Your task to perform on an android device: What's the weather? Image 0: 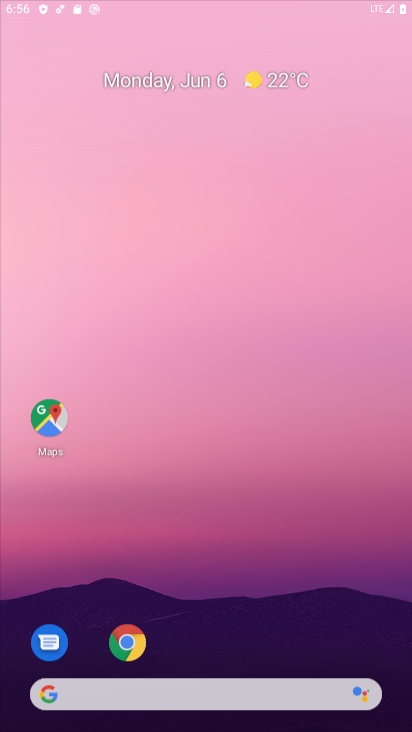
Step 0: click (173, 290)
Your task to perform on an android device: What's the weather? Image 1: 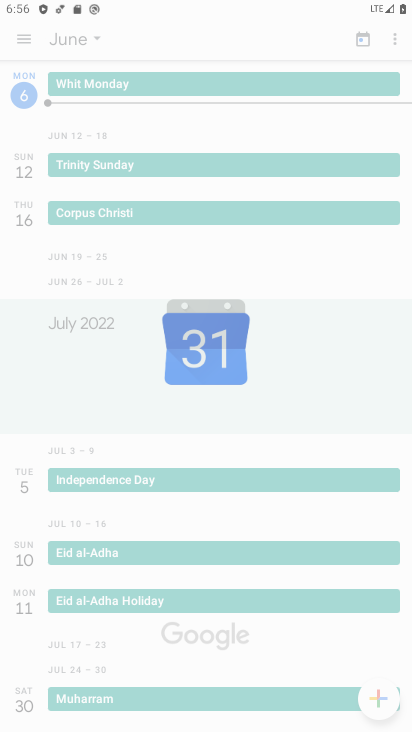
Step 1: drag from (166, 713) to (293, 234)
Your task to perform on an android device: What's the weather? Image 2: 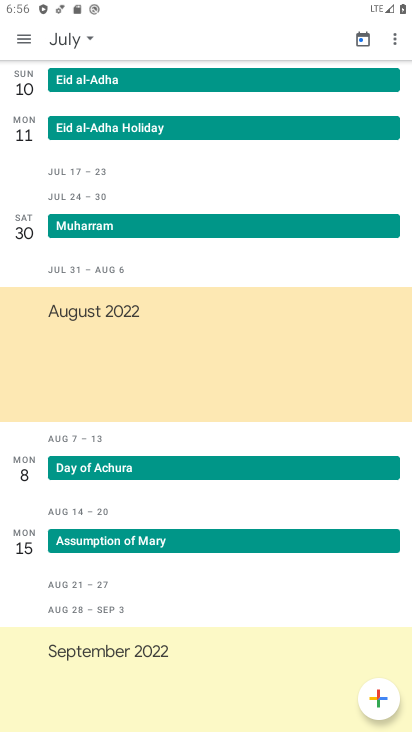
Step 2: press home button
Your task to perform on an android device: What's the weather? Image 3: 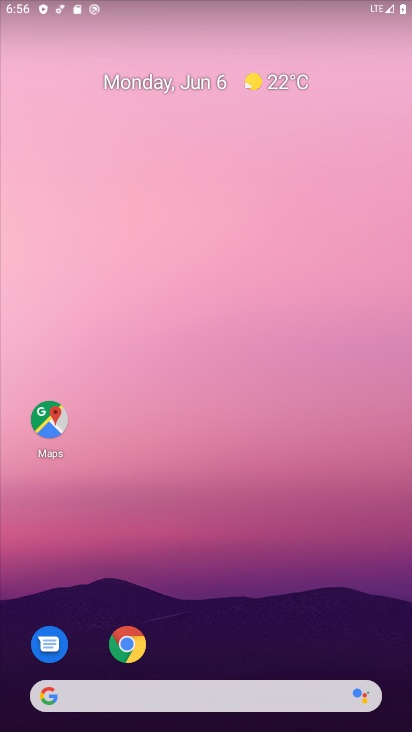
Step 3: click (115, 695)
Your task to perform on an android device: What's the weather? Image 4: 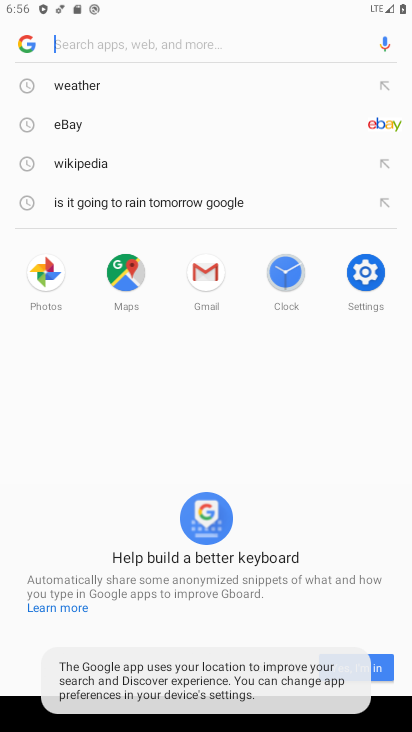
Step 4: click (99, 86)
Your task to perform on an android device: What's the weather? Image 5: 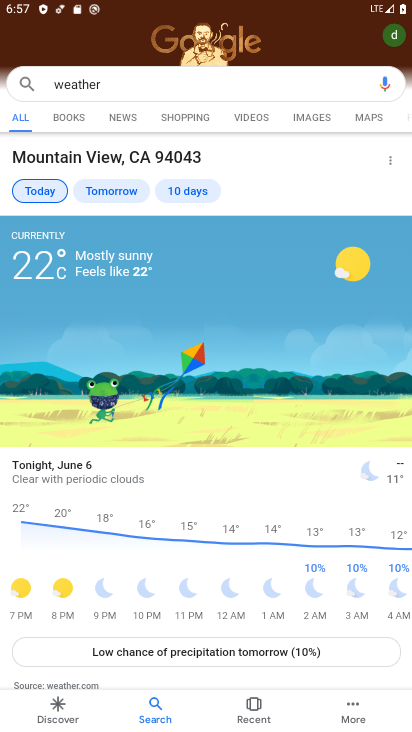
Step 5: task complete